Your task to perform on an android device: set the timer Image 0: 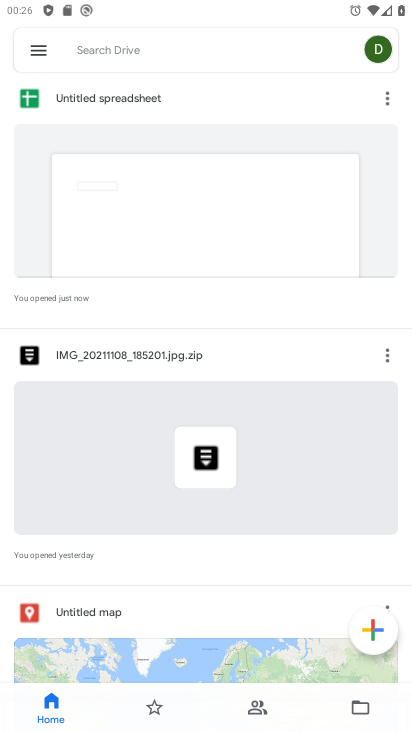
Step 0: press home button
Your task to perform on an android device: set the timer Image 1: 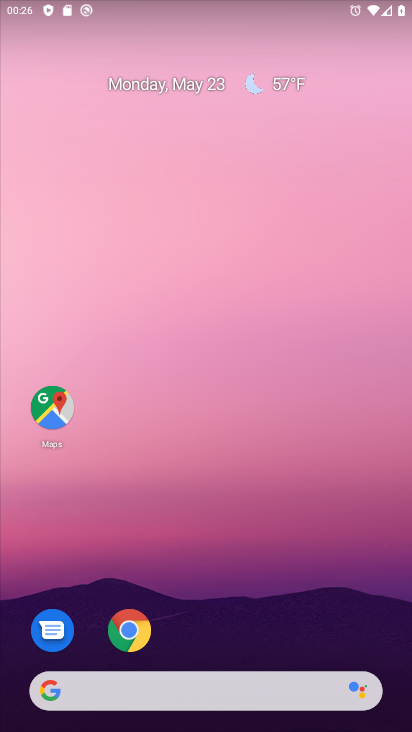
Step 1: drag from (317, 598) to (180, 2)
Your task to perform on an android device: set the timer Image 2: 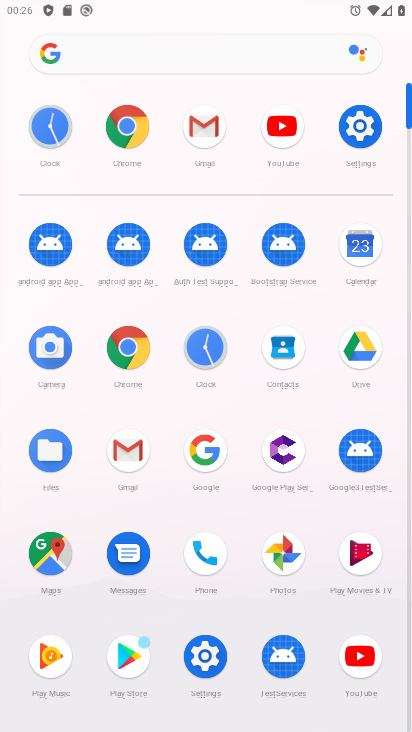
Step 2: click (25, 104)
Your task to perform on an android device: set the timer Image 3: 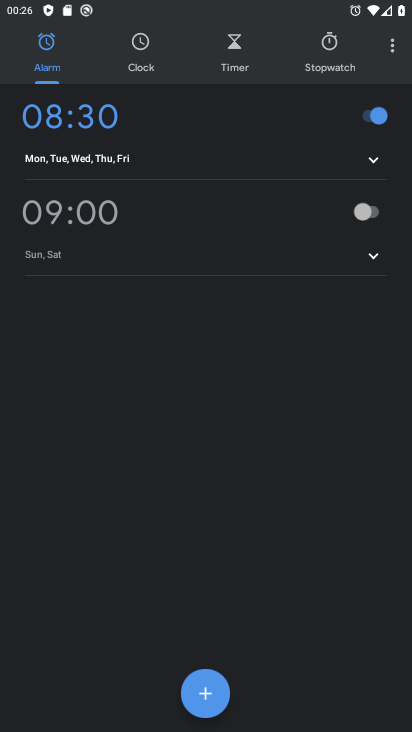
Step 3: click (235, 48)
Your task to perform on an android device: set the timer Image 4: 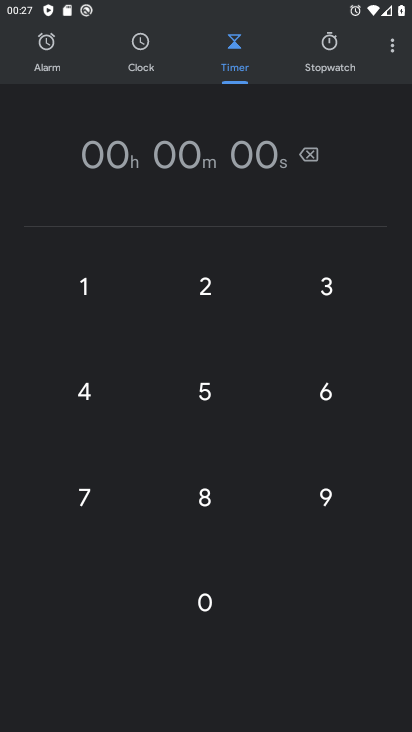
Step 4: click (84, 281)
Your task to perform on an android device: set the timer Image 5: 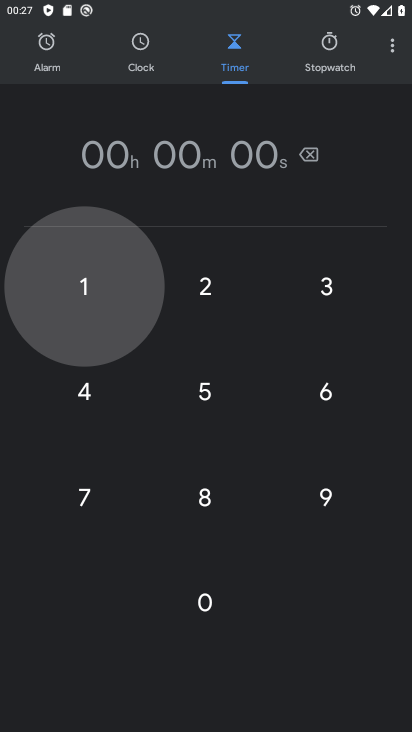
Step 5: click (86, 277)
Your task to perform on an android device: set the timer Image 6: 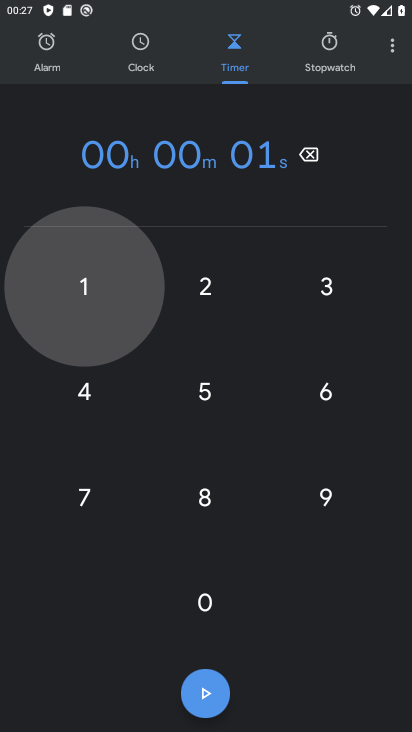
Step 6: click (86, 277)
Your task to perform on an android device: set the timer Image 7: 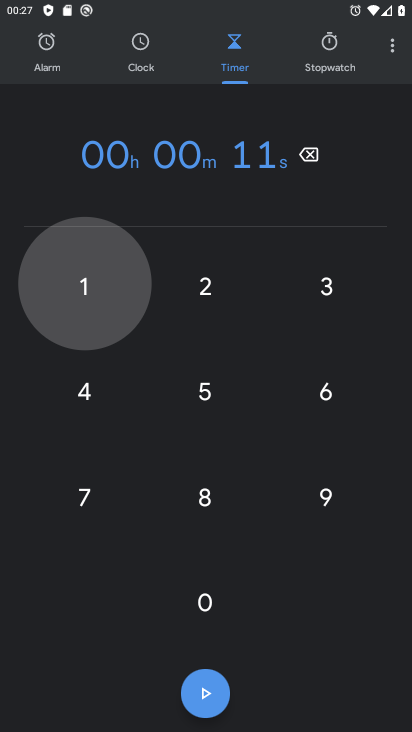
Step 7: click (86, 277)
Your task to perform on an android device: set the timer Image 8: 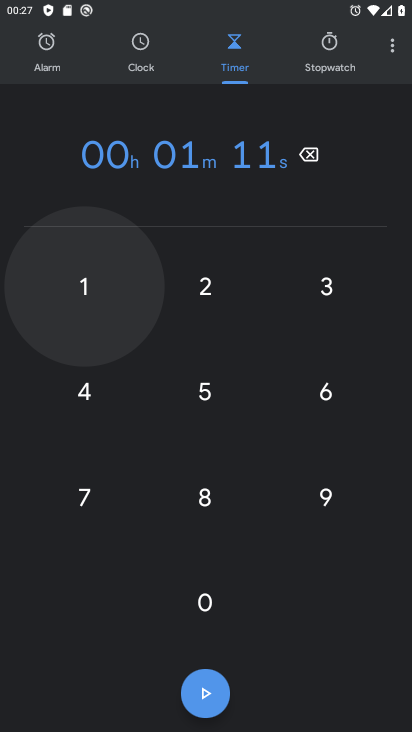
Step 8: click (86, 277)
Your task to perform on an android device: set the timer Image 9: 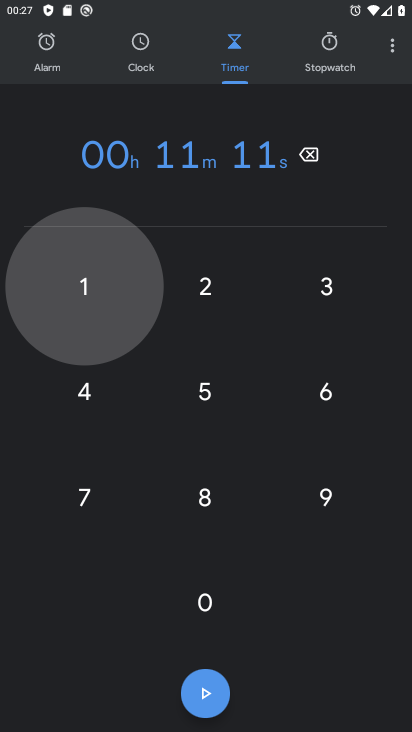
Step 9: click (86, 277)
Your task to perform on an android device: set the timer Image 10: 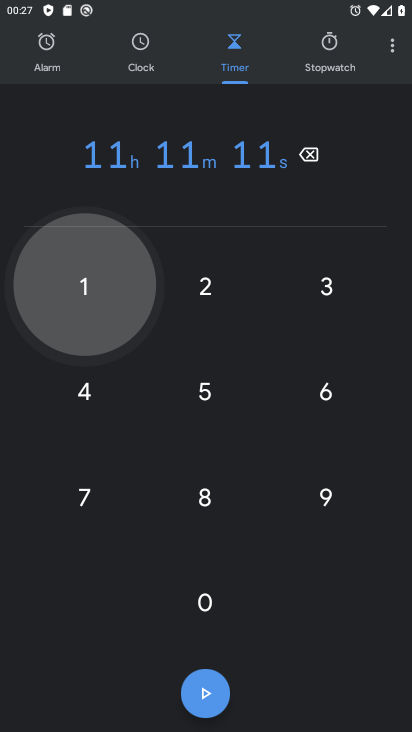
Step 10: click (86, 277)
Your task to perform on an android device: set the timer Image 11: 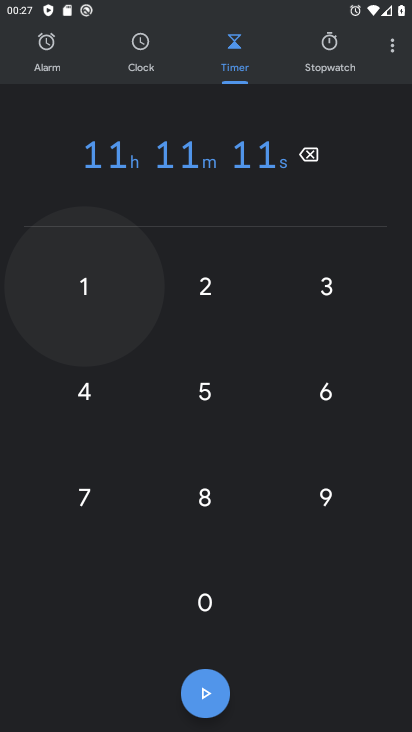
Step 11: click (86, 277)
Your task to perform on an android device: set the timer Image 12: 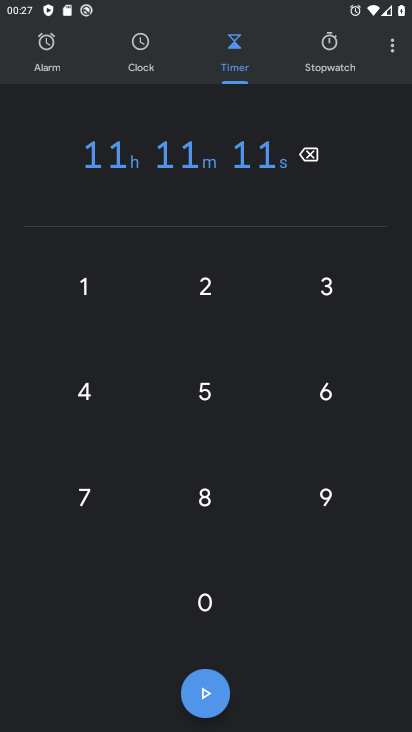
Step 12: click (205, 680)
Your task to perform on an android device: set the timer Image 13: 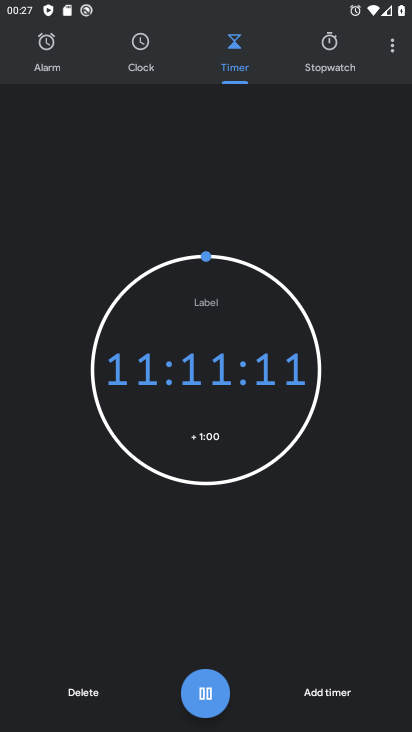
Step 13: task complete